Your task to perform on an android device: choose inbox layout in the gmail app Image 0: 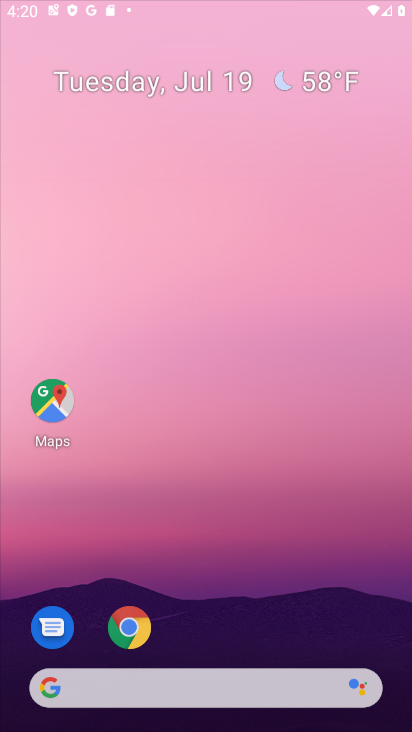
Step 0: press home button
Your task to perform on an android device: choose inbox layout in the gmail app Image 1: 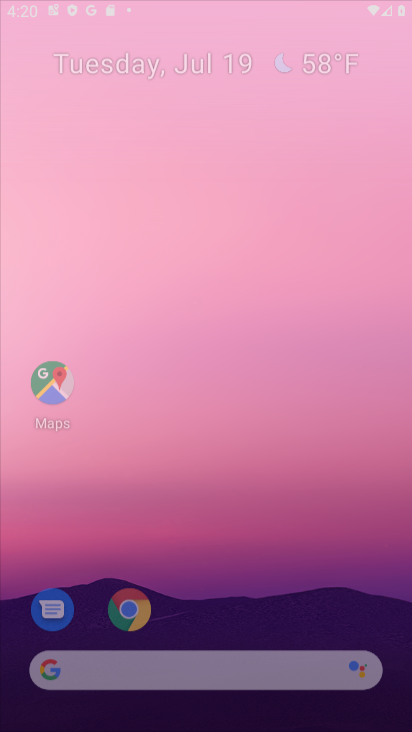
Step 1: drag from (264, 619) to (259, 174)
Your task to perform on an android device: choose inbox layout in the gmail app Image 2: 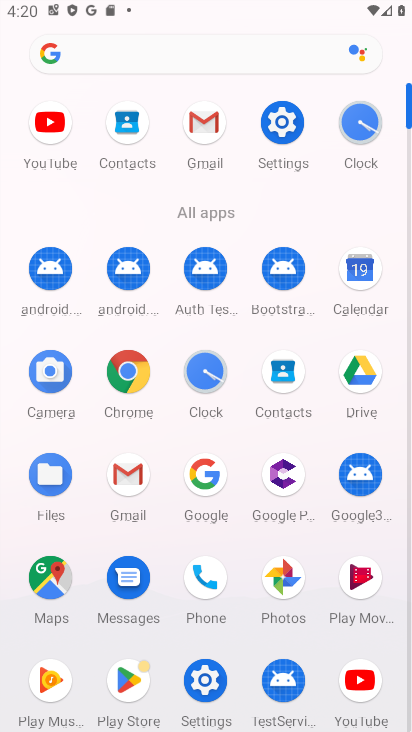
Step 2: click (214, 123)
Your task to perform on an android device: choose inbox layout in the gmail app Image 3: 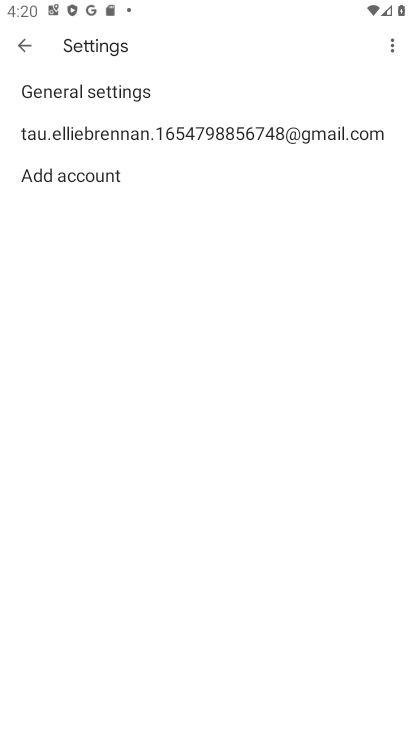
Step 3: click (95, 123)
Your task to perform on an android device: choose inbox layout in the gmail app Image 4: 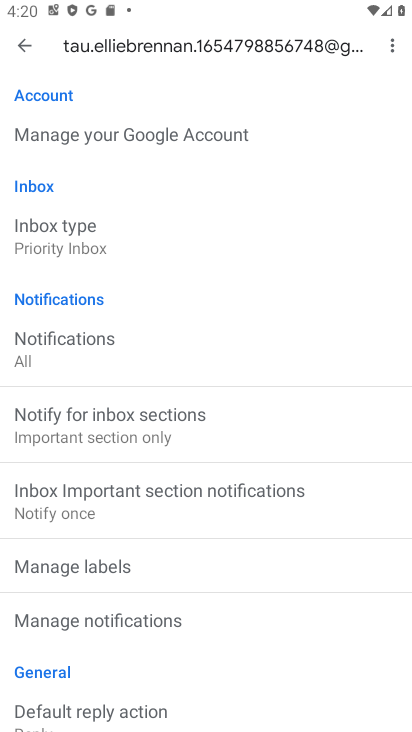
Step 4: click (89, 244)
Your task to perform on an android device: choose inbox layout in the gmail app Image 5: 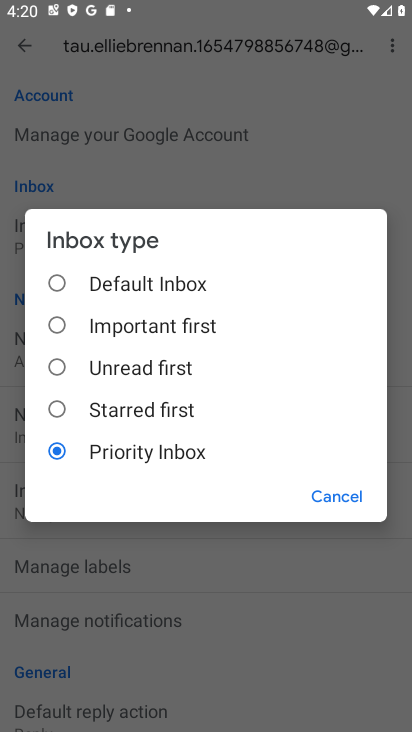
Step 5: click (57, 274)
Your task to perform on an android device: choose inbox layout in the gmail app Image 6: 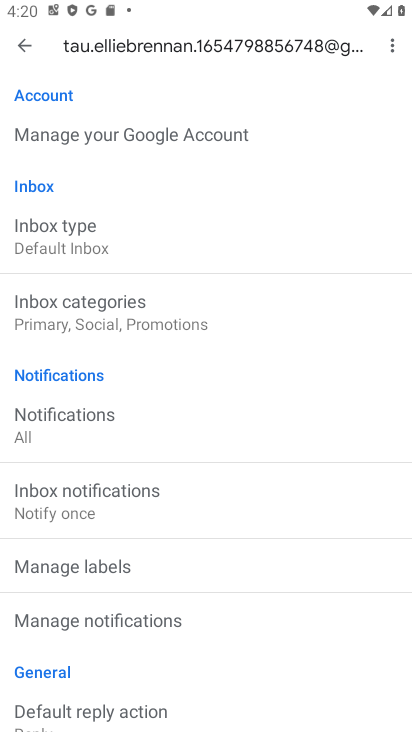
Step 6: task complete